Your task to perform on an android device: Go to location settings Image 0: 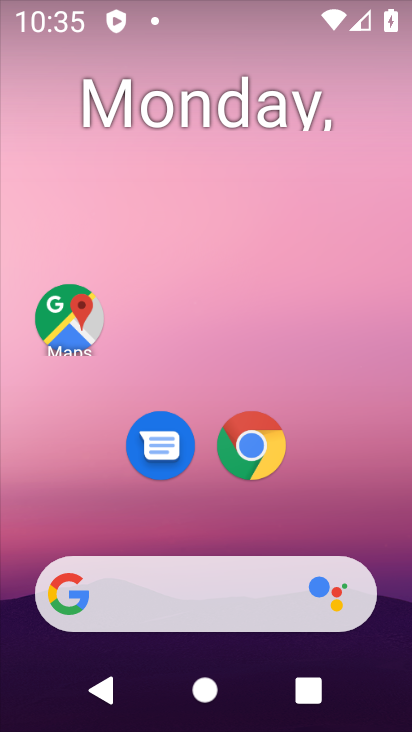
Step 0: drag from (310, 510) to (60, 81)
Your task to perform on an android device: Go to location settings Image 1: 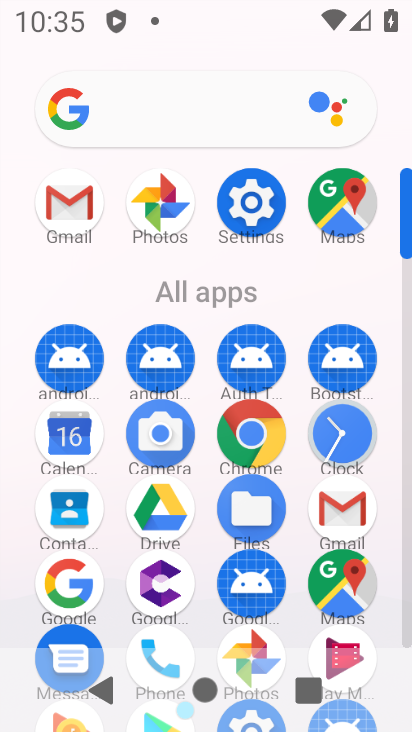
Step 1: click (273, 207)
Your task to perform on an android device: Go to location settings Image 2: 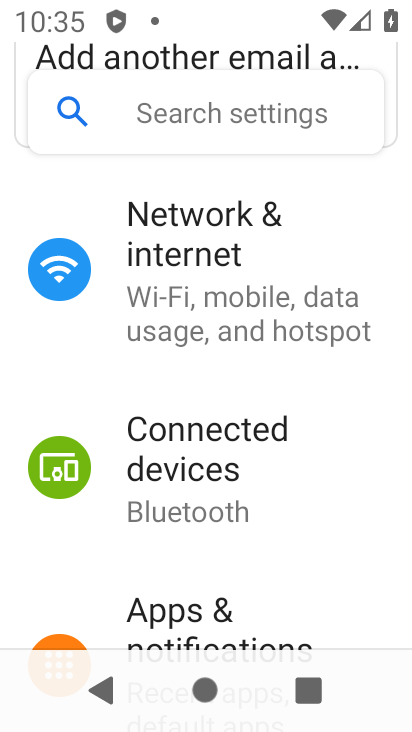
Step 2: drag from (271, 604) to (315, 129)
Your task to perform on an android device: Go to location settings Image 3: 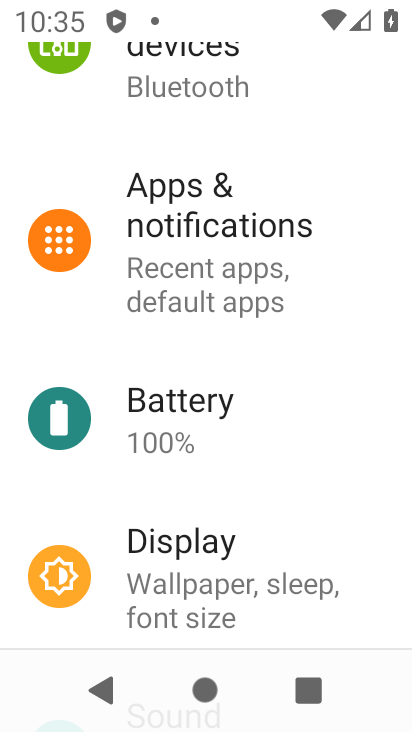
Step 3: drag from (237, 603) to (301, 159)
Your task to perform on an android device: Go to location settings Image 4: 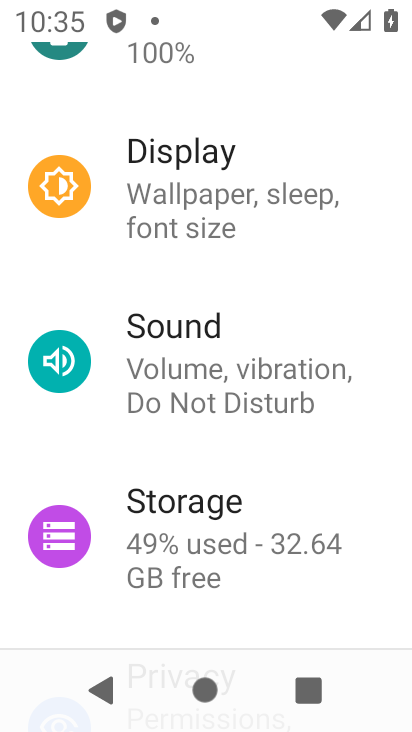
Step 4: drag from (293, 577) to (290, 184)
Your task to perform on an android device: Go to location settings Image 5: 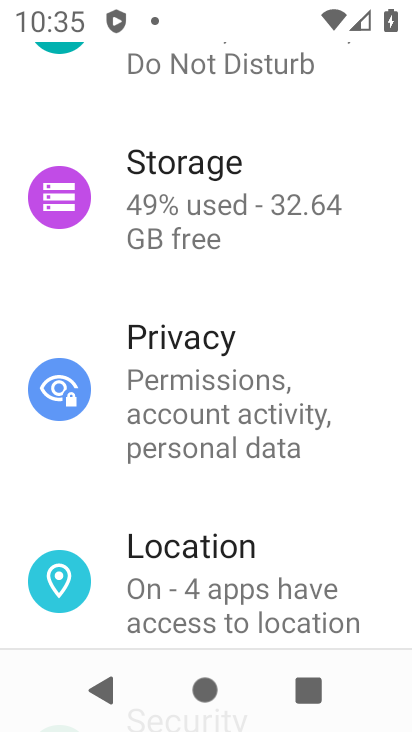
Step 5: click (243, 603)
Your task to perform on an android device: Go to location settings Image 6: 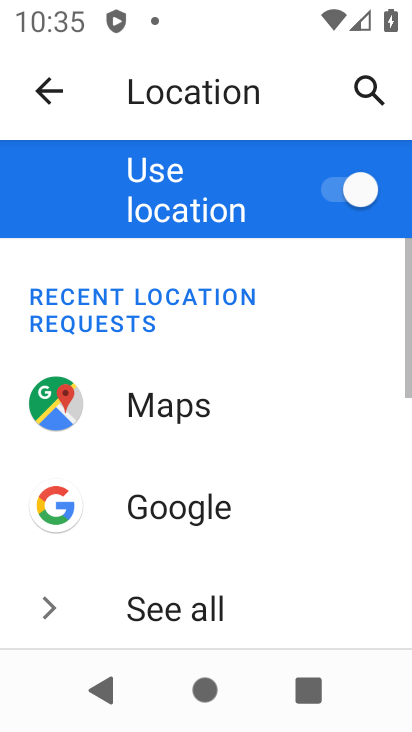
Step 6: task complete